Your task to perform on an android device: toggle show notifications on the lock screen Image 0: 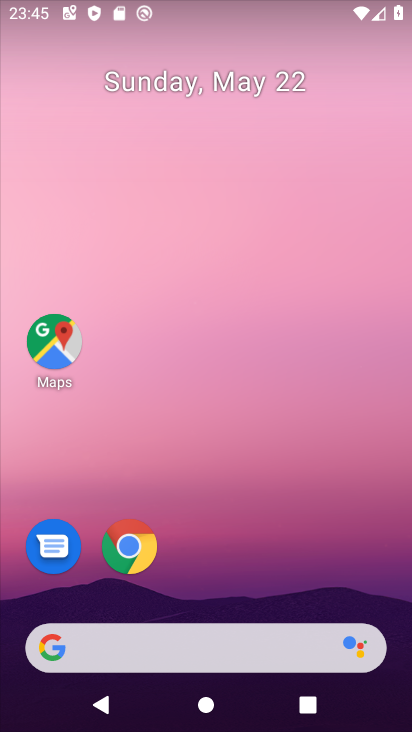
Step 0: drag from (199, 595) to (299, 80)
Your task to perform on an android device: toggle show notifications on the lock screen Image 1: 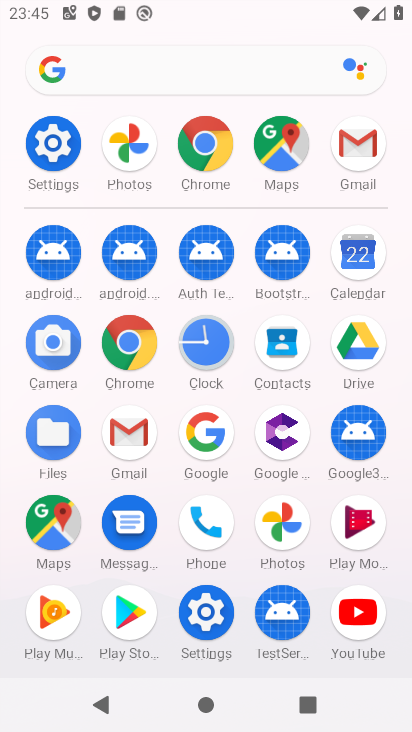
Step 1: click (202, 599)
Your task to perform on an android device: toggle show notifications on the lock screen Image 2: 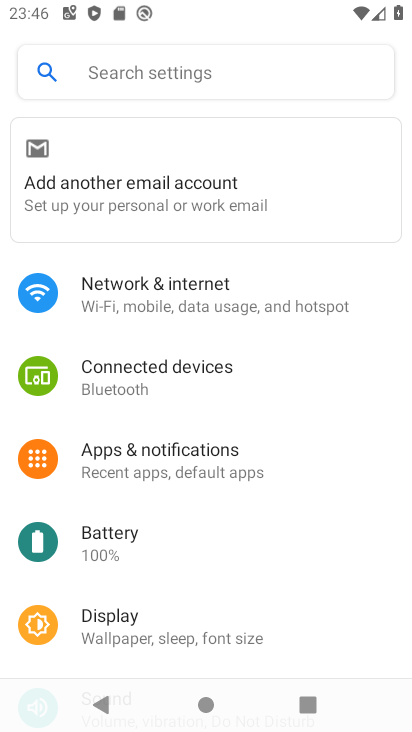
Step 2: click (185, 466)
Your task to perform on an android device: toggle show notifications on the lock screen Image 3: 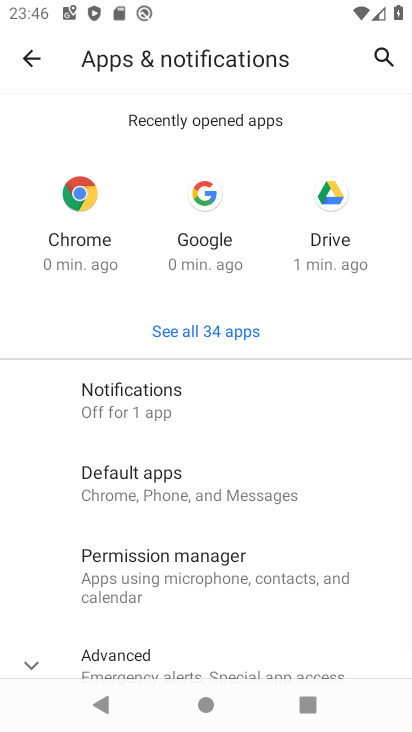
Step 3: click (203, 403)
Your task to perform on an android device: toggle show notifications on the lock screen Image 4: 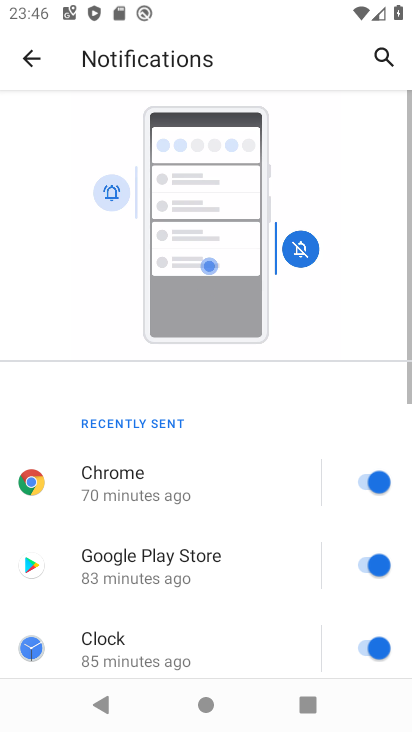
Step 4: drag from (226, 629) to (257, 6)
Your task to perform on an android device: toggle show notifications on the lock screen Image 5: 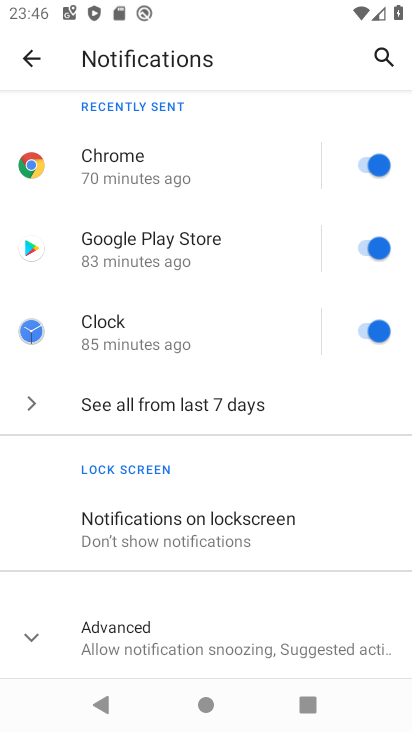
Step 5: click (199, 518)
Your task to perform on an android device: toggle show notifications on the lock screen Image 6: 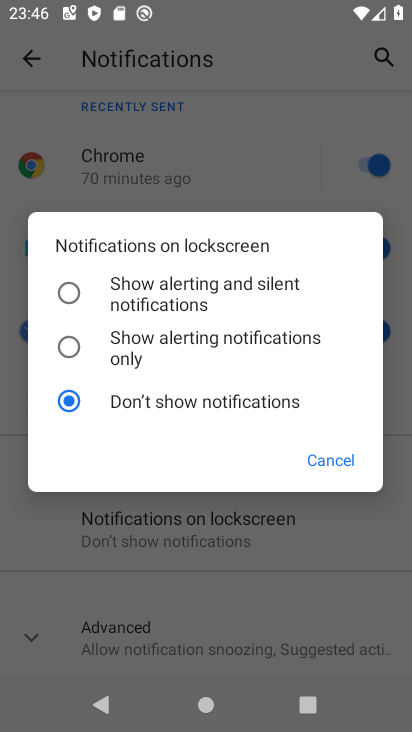
Step 6: click (143, 337)
Your task to perform on an android device: toggle show notifications on the lock screen Image 7: 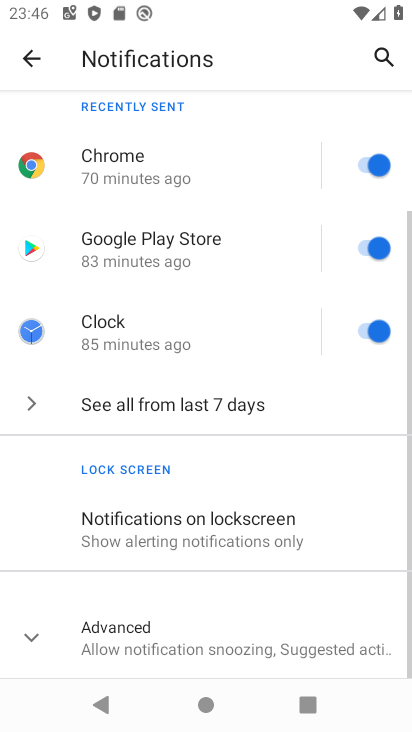
Step 7: task complete